Your task to perform on an android device: Open settings Image 0: 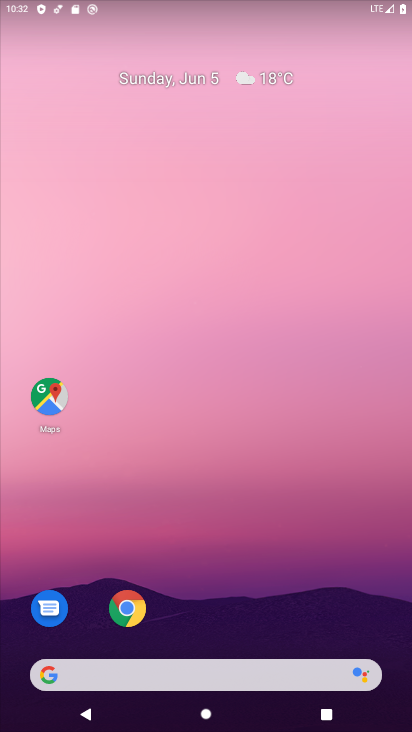
Step 0: drag from (254, 668) to (372, 161)
Your task to perform on an android device: Open settings Image 1: 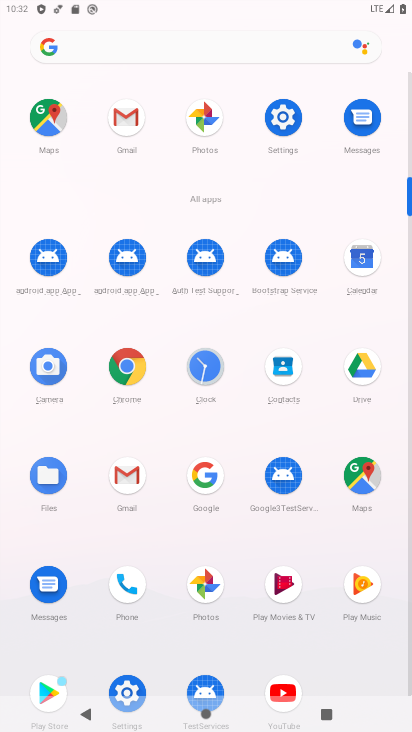
Step 1: click (266, 127)
Your task to perform on an android device: Open settings Image 2: 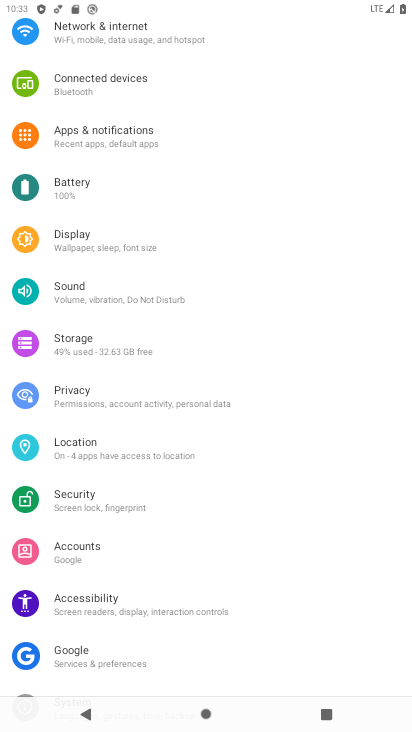
Step 2: task complete